Your task to perform on an android device: change the clock display to analog Image 0: 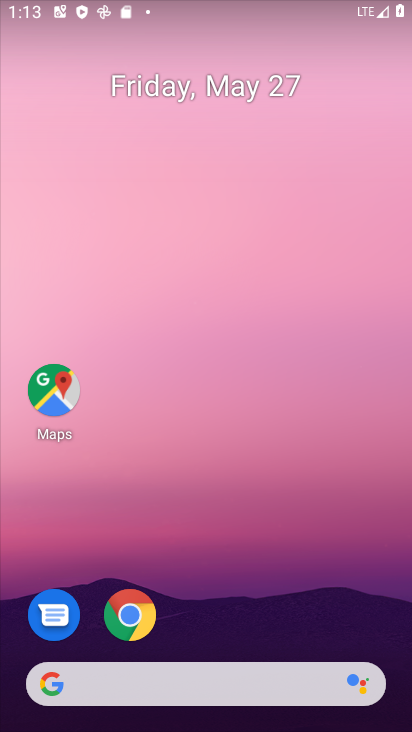
Step 0: drag from (250, 548) to (215, 29)
Your task to perform on an android device: change the clock display to analog Image 1: 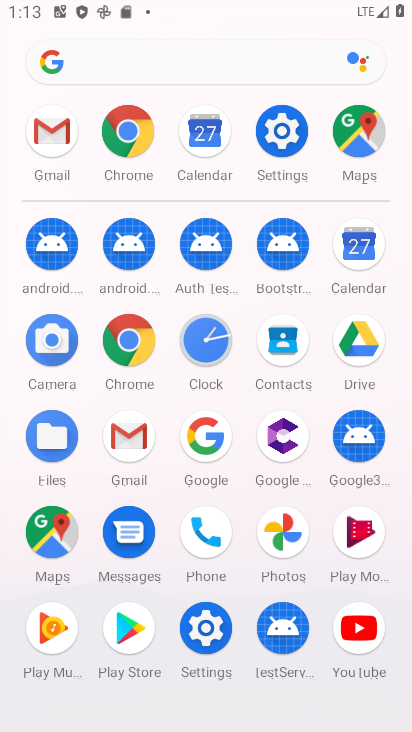
Step 1: click (207, 348)
Your task to perform on an android device: change the clock display to analog Image 2: 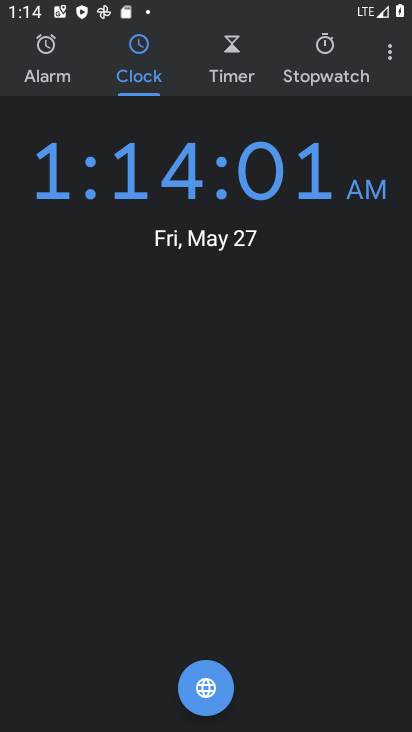
Step 2: click (388, 47)
Your task to perform on an android device: change the clock display to analog Image 3: 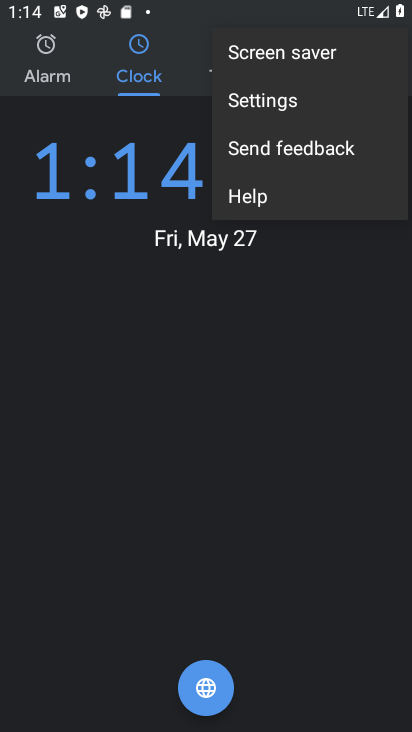
Step 3: click (287, 98)
Your task to perform on an android device: change the clock display to analog Image 4: 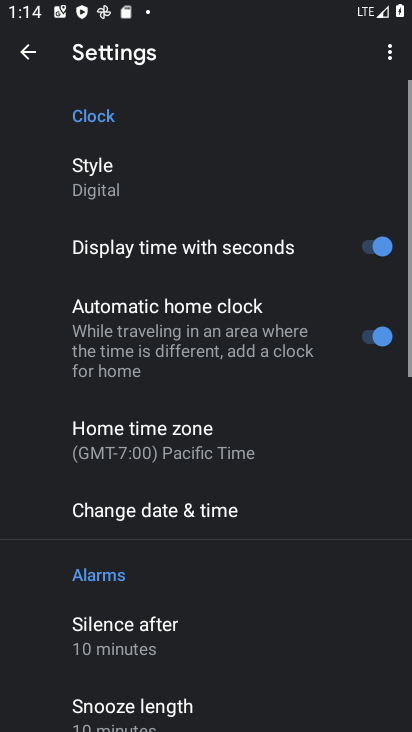
Step 4: click (177, 187)
Your task to perform on an android device: change the clock display to analog Image 5: 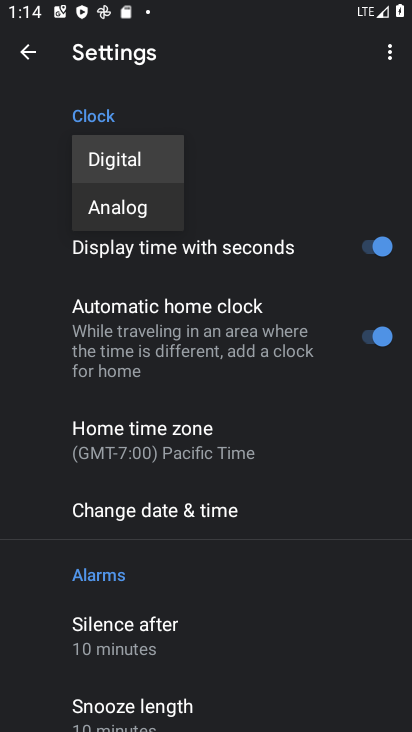
Step 5: click (128, 214)
Your task to perform on an android device: change the clock display to analog Image 6: 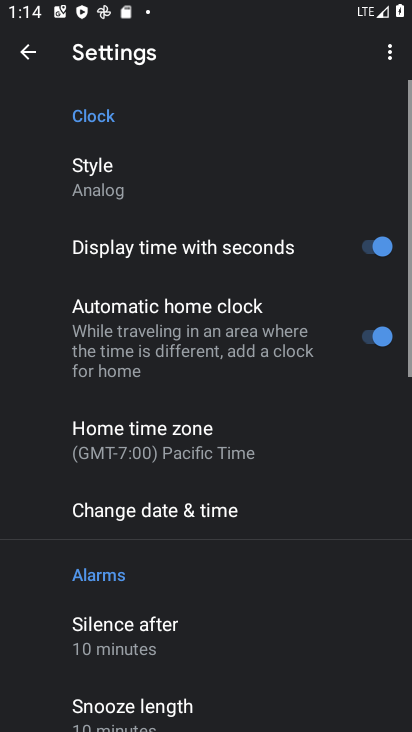
Step 6: task complete